Your task to perform on an android device: Open Google Maps and go to "Timeline" Image 0: 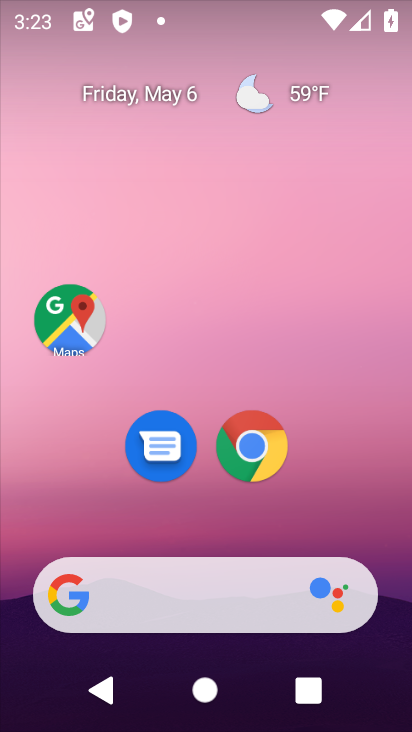
Step 0: click (72, 327)
Your task to perform on an android device: Open Google Maps and go to "Timeline" Image 1: 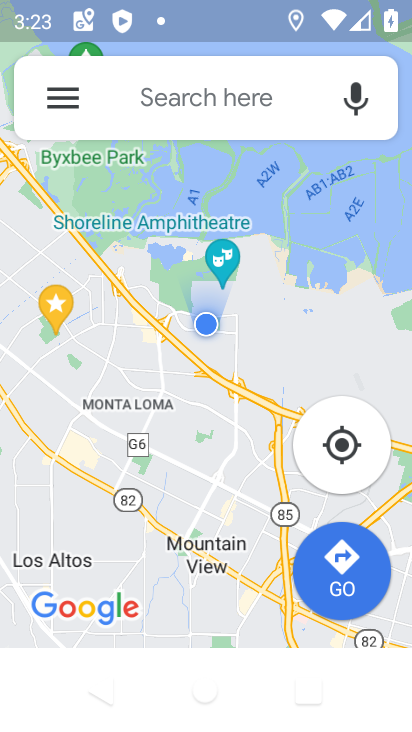
Step 1: click (60, 100)
Your task to perform on an android device: Open Google Maps and go to "Timeline" Image 2: 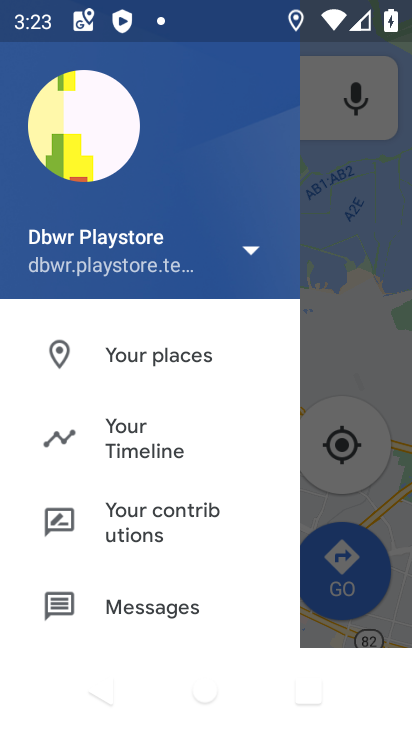
Step 2: click (169, 457)
Your task to perform on an android device: Open Google Maps and go to "Timeline" Image 3: 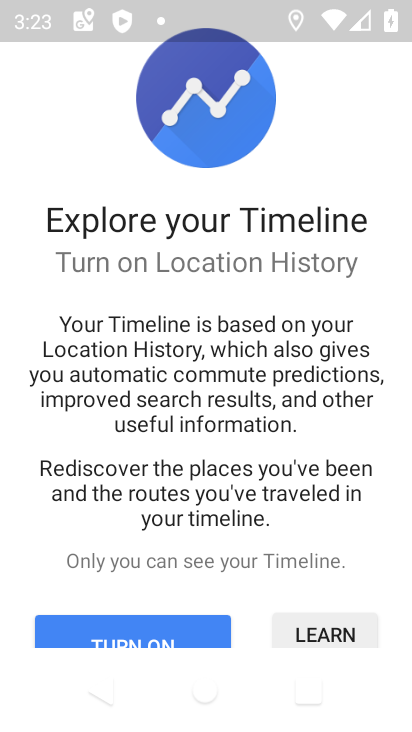
Step 3: drag from (238, 535) to (277, 265)
Your task to perform on an android device: Open Google Maps and go to "Timeline" Image 4: 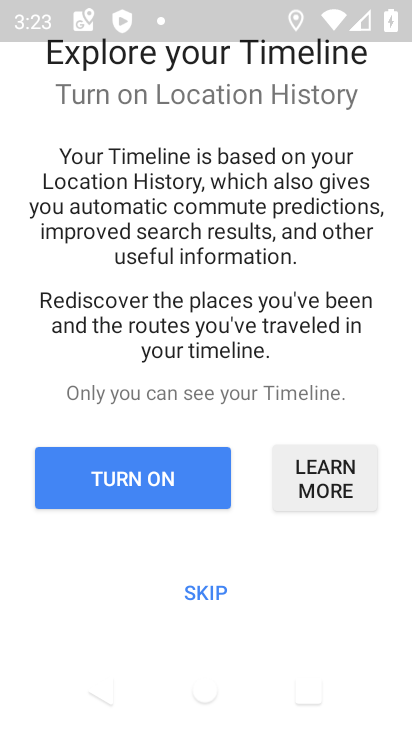
Step 4: click (204, 586)
Your task to perform on an android device: Open Google Maps and go to "Timeline" Image 5: 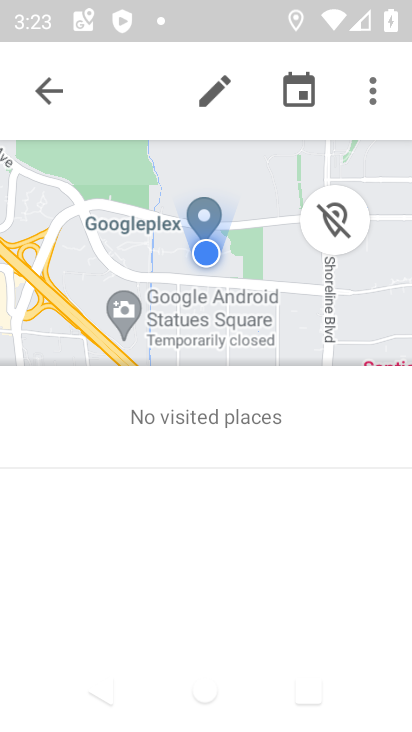
Step 5: task complete